Your task to perform on an android device: Open location settings Image 0: 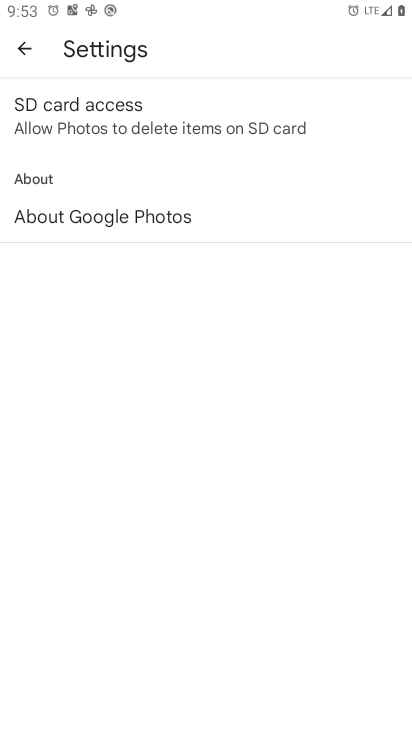
Step 0: press home button
Your task to perform on an android device: Open location settings Image 1: 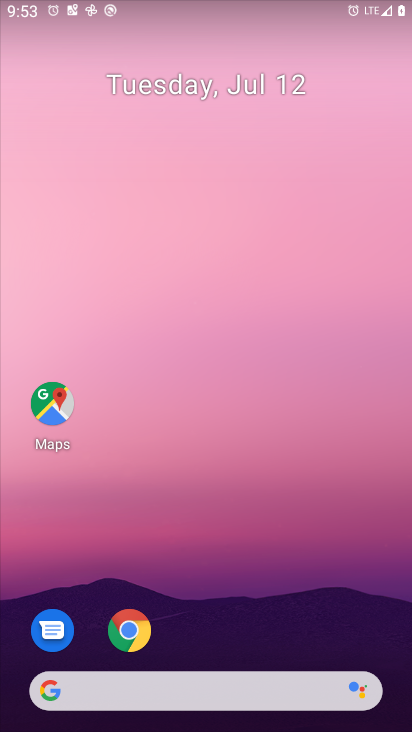
Step 1: drag from (256, 602) to (241, 110)
Your task to perform on an android device: Open location settings Image 2: 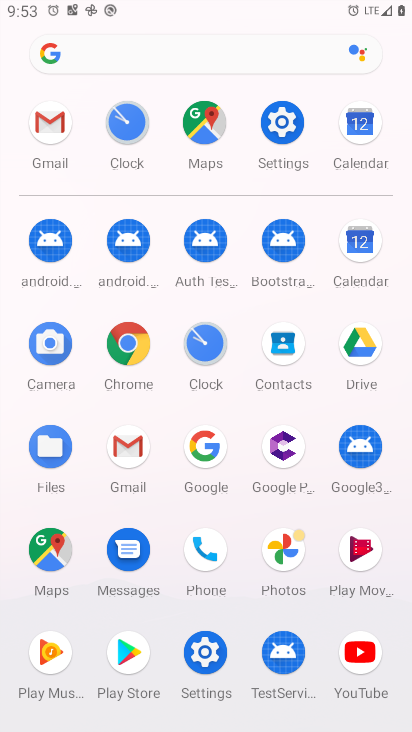
Step 2: click (287, 127)
Your task to perform on an android device: Open location settings Image 3: 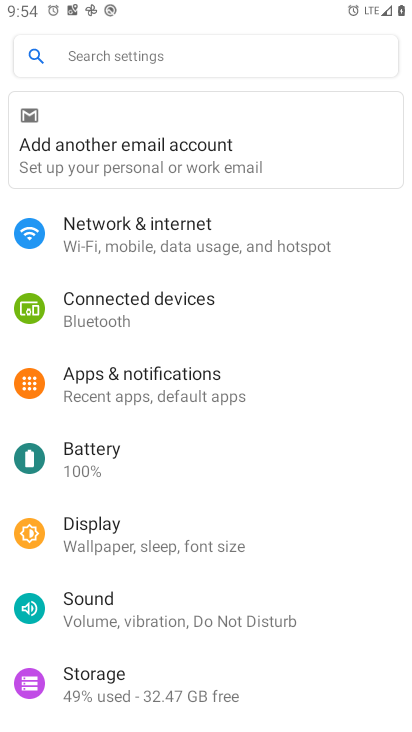
Step 3: drag from (147, 653) to (166, 318)
Your task to perform on an android device: Open location settings Image 4: 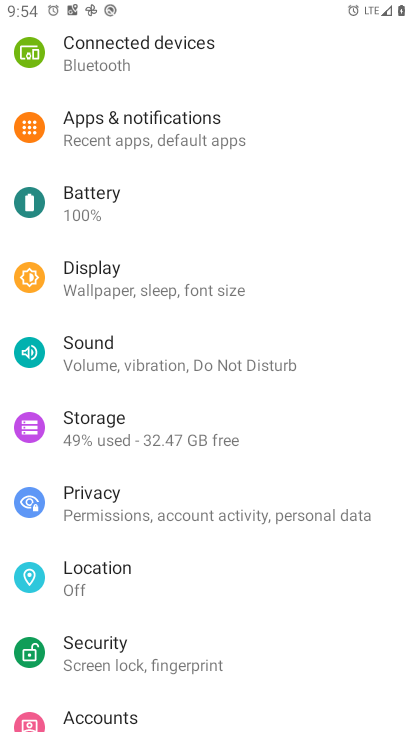
Step 4: click (75, 576)
Your task to perform on an android device: Open location settings Image 5: 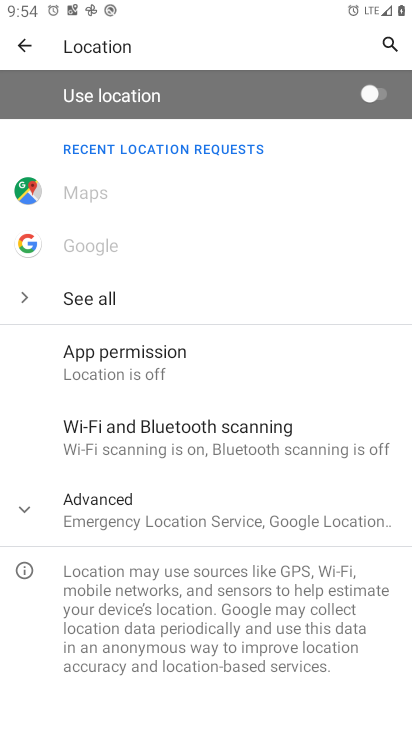
Step 5: task complete